Your task to perform on an android device: turn on notifications settings in the gmail app Image 0: 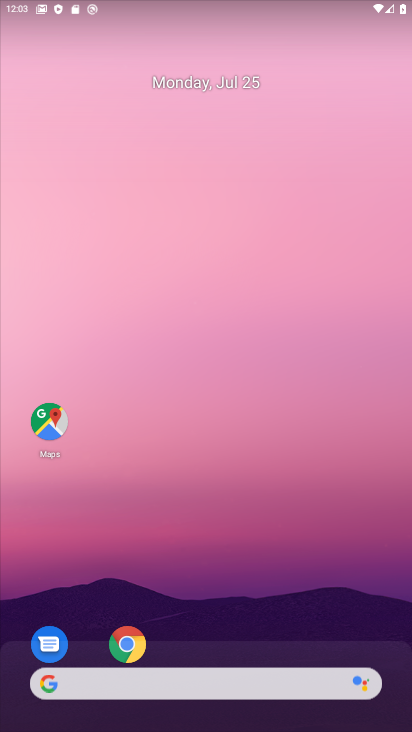
Step 0: drag from (358, 656) to (189, 32)
Your task to perform on an android device: turn on notifications settings in the gmail app Image 1: 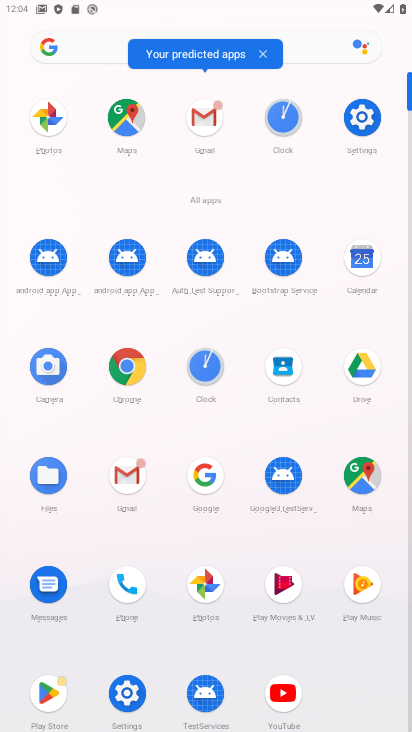
Step 1: click (108, 461)
Your task to perform on an android device: turn on notifications settings in the gmail app Image 2: 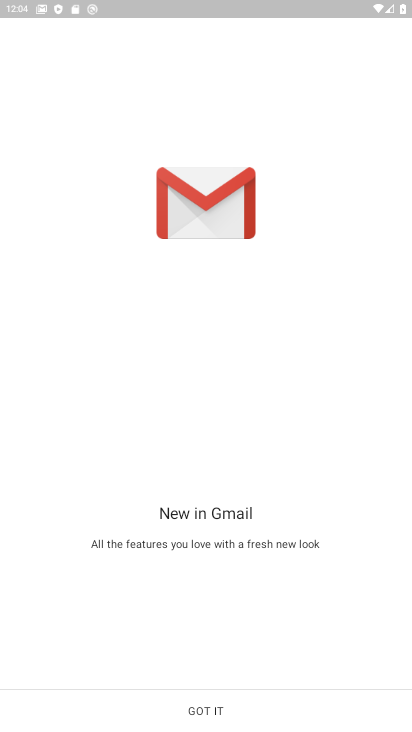
Step 2: click (196, 703)
Your task to perform on an android device: turn on notifications settings in the gmail app Image 3: 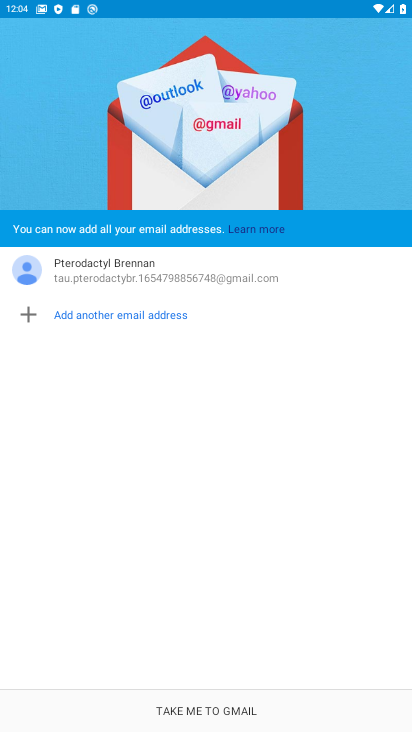
Step 3: click (210, 711)
Your task to perform on an android device: turn on notifications settings in the gmail app Image 4: 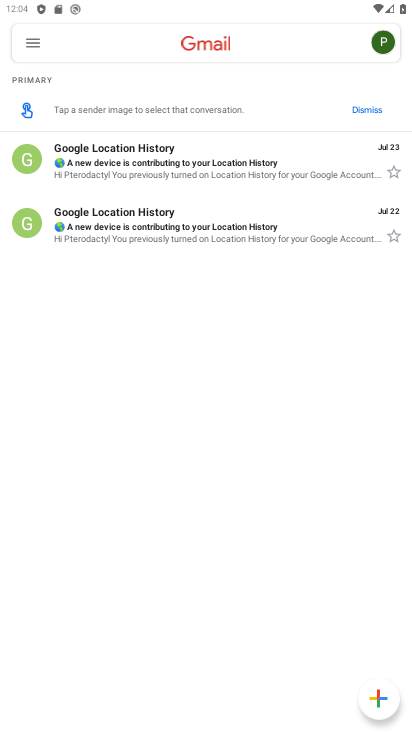
Step 4: click (29, 46)
Your task to perform on an android device: turn on notifications settings in the gmail app Image 5: 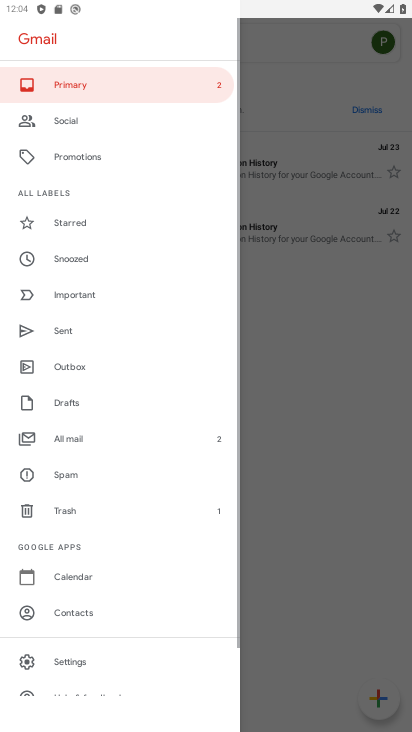
Step 5: drag from (84, 651) to (72, 139)
Your task to perform on an android device: turn on notifications settings in the gmail app Image 6: 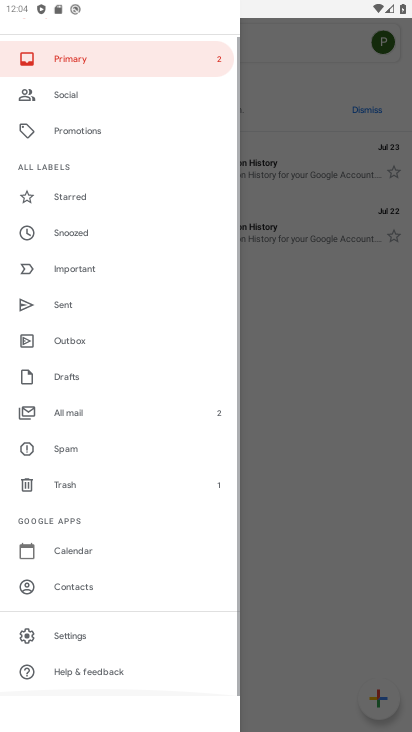
Step 6: click (77, 630)
Your task to perform on an android device: turn on notifications settings in the gmail app Image 7: 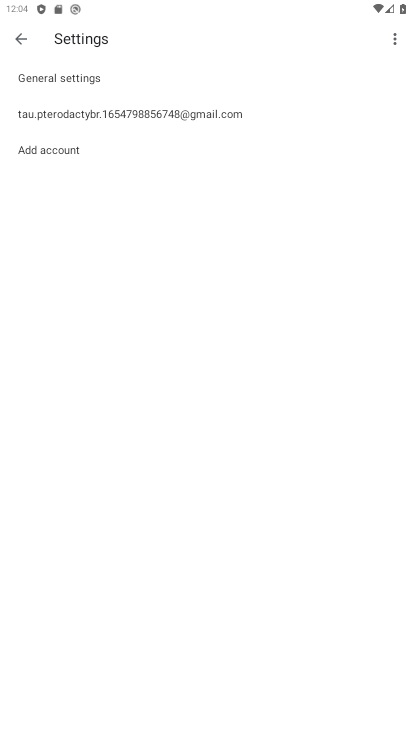
Step 7: click (96, 121)
Your task to perform on an android device: turn on notifications settings in the gmail app Image 8: 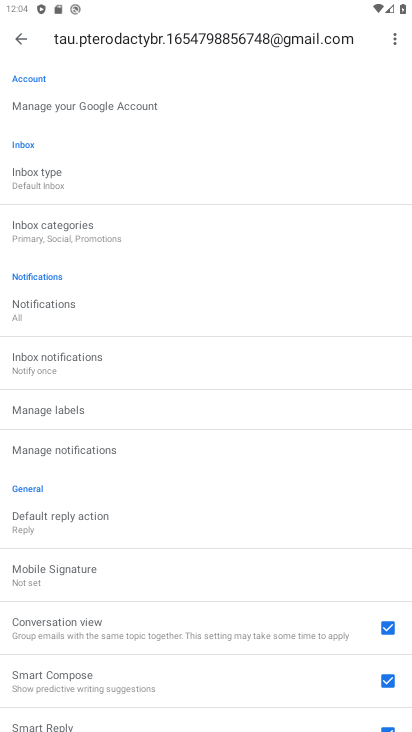
Step 8: click (101, 310)
Your task to perform on an android device: turn on notifications settings in the gmail app Image 9: 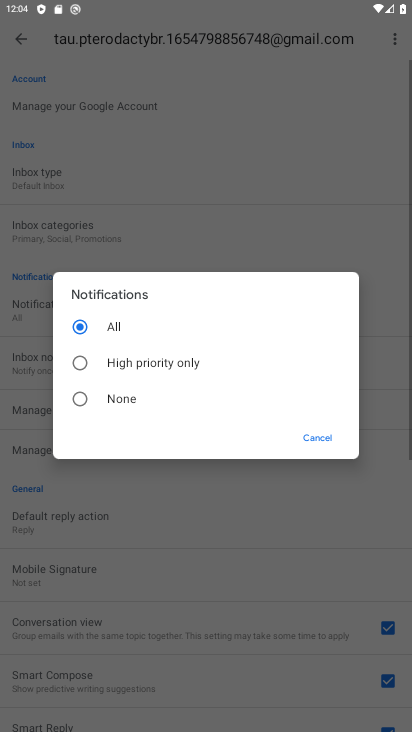
Step 9: click (106, 318)
Your task to perform on an android device: turn on notifications settings in the gmail app Image 10: 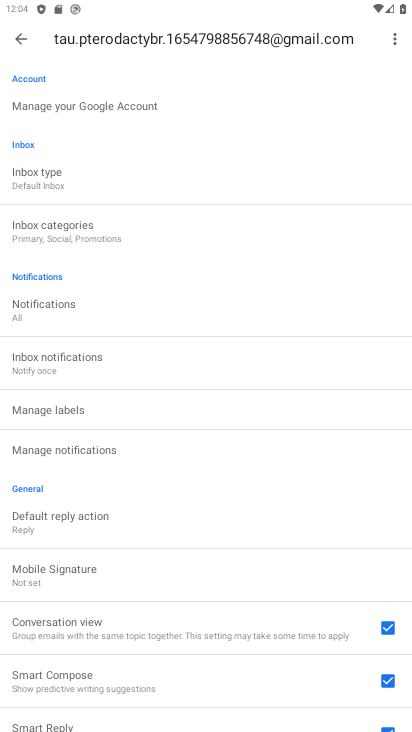
Step 10: task complete